Your task to perform on an android device: Go to display settings Image 0: 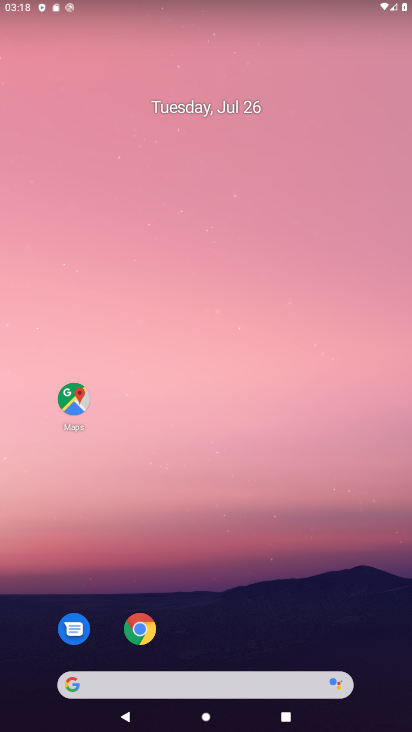
Step 0: drag from (258, 627) to (252, 121)
Your task to perform on an android device: Go to display settings Image 1: 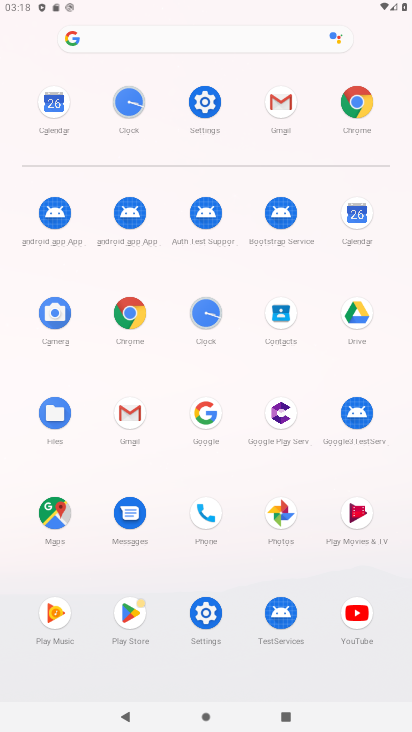
Step 1: click (203, 607)
Your task to perform on an android device: Go to display settings Image 2: 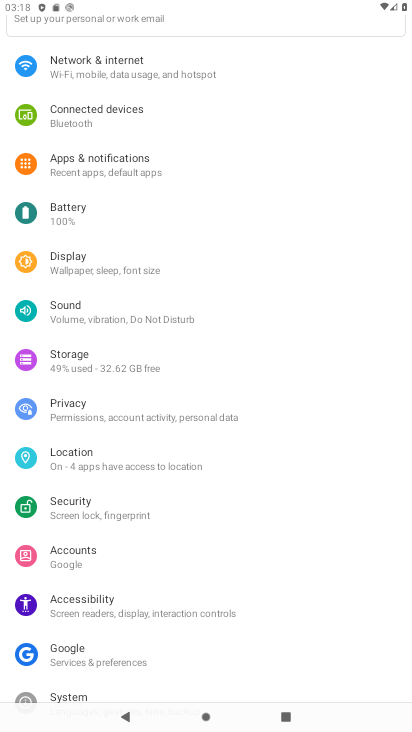
Step 2: click (100, 264)
Your task to perform on an android device: Go to display settings Image 3: 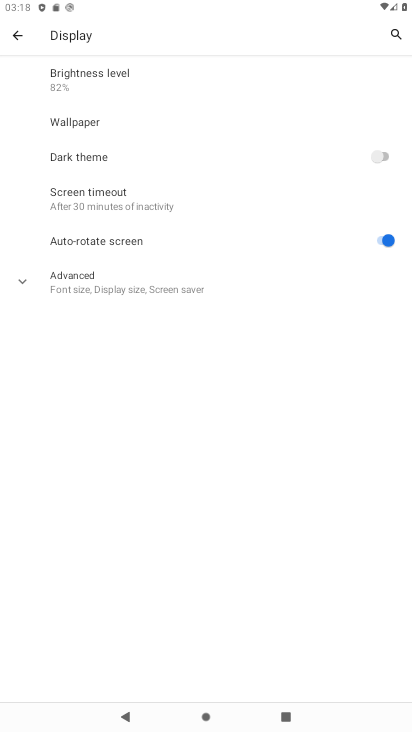
Step 3: task complete